Your task to perform on an android device: Show me productivity apps on the Play Store Image 0: 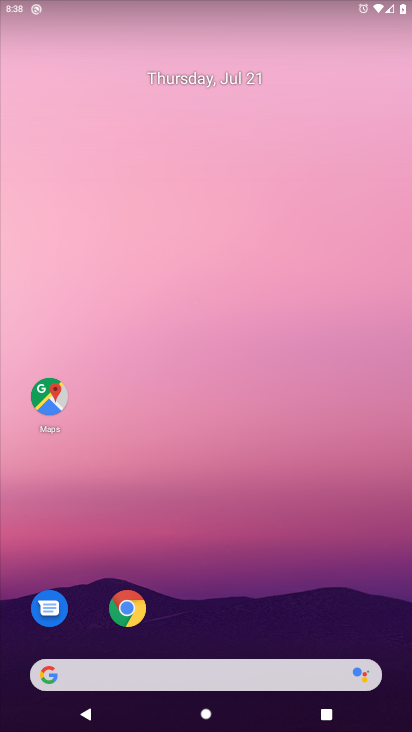
Step 0: drag from (34, 679) to (142, 328)
Your task to perform on an android device: Show me productivity apps on the Play Store Image 1: 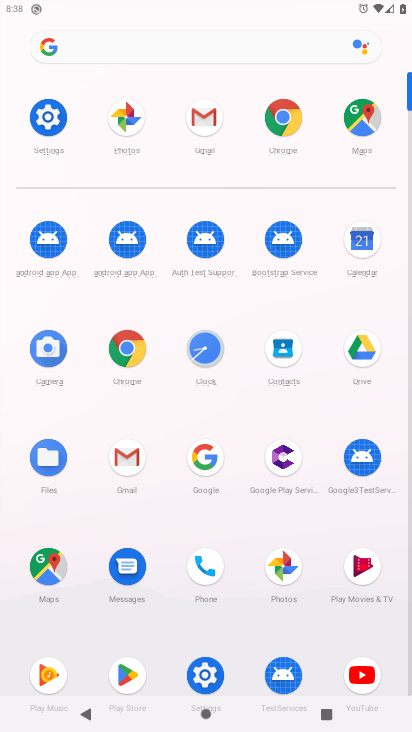
Step 1: click (123, 682)
Your task to perform on an android device: Show me productivity apps on the Play Store Image 2: 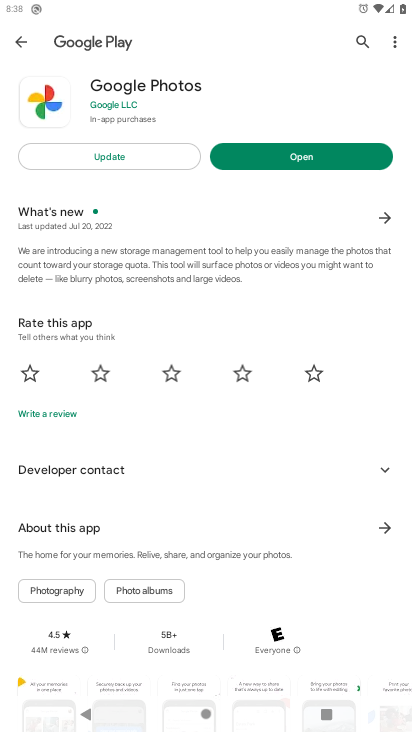
Step 2: click (16, 47)
Your task to perform on an android device: Show me productivity apps on the Play Store Image 3: 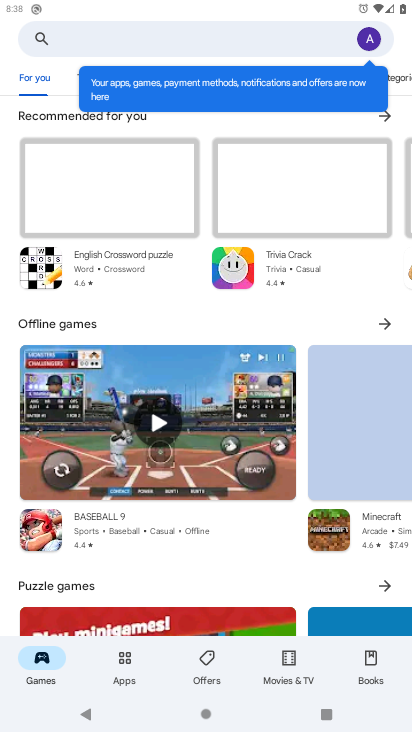
Step 3: click (88, 34)
Your task to perform on an android device: Show me productivity apps on the Play Store Image 4: 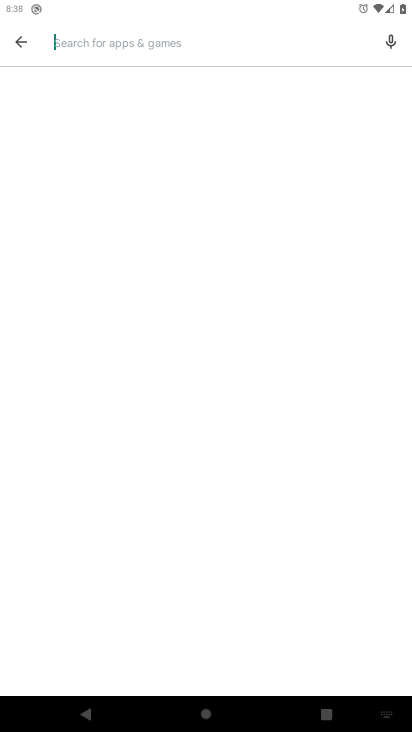
Step 4: click (63, 51)
Your task to perform on an android device: Show me productivity apps on the Play Store Image 5: 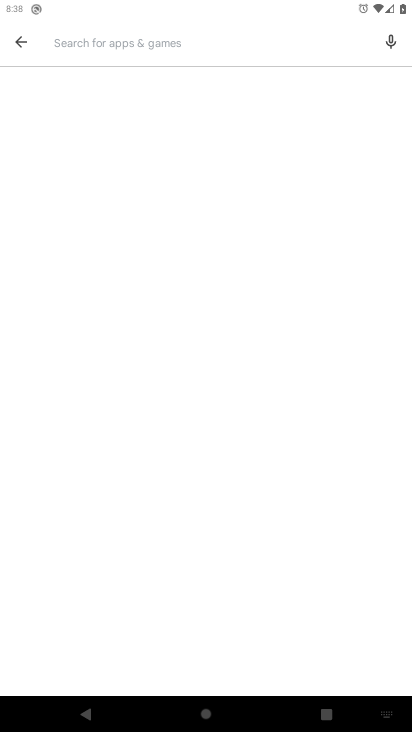
Step 5: type "productivity apps"
Your task to perform on an android device: Show me productivity apps on the Play Store Image 6: 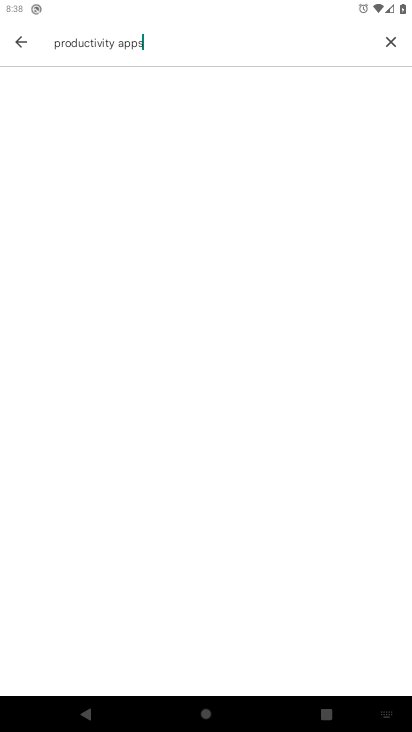
Step 6: type ""
Your task to perform on an android device: Show me productivity apps on the Play Store Image 7: 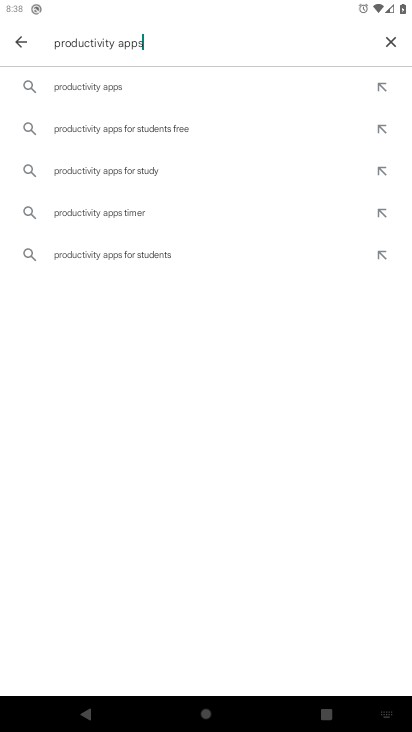
Step 7: click (65, 81)
Your task to perform on an android device: Show me productivity apps on the Play Store Image 8: 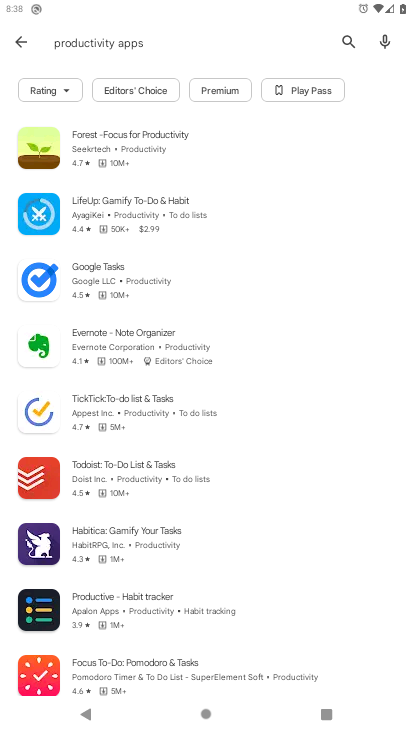
Step 8: task complete